Your task to perform on an android device: turn off location Image 0: 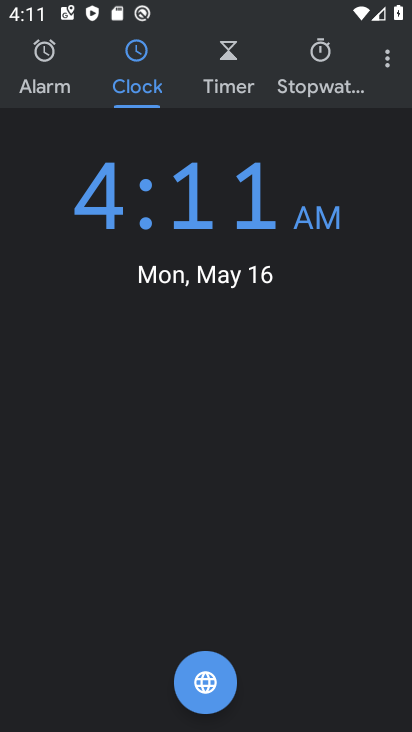
Step 0: press home button
Your task to perform on an android device: turn off location Image 1: 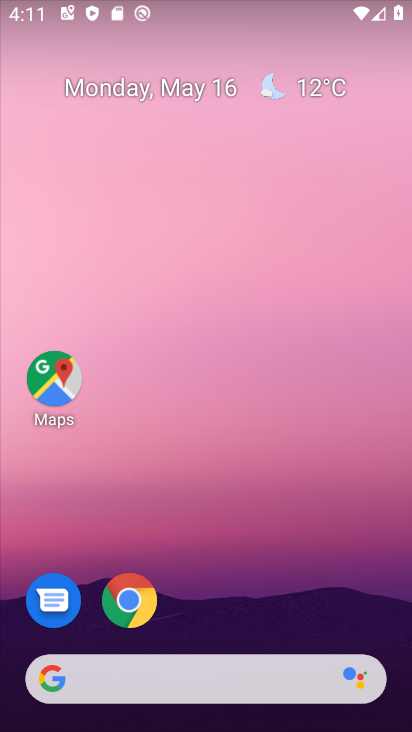
Step 1: drag from (199, 618) to (239, 254)
Your task to perform on an android device: turn off location Image 2: 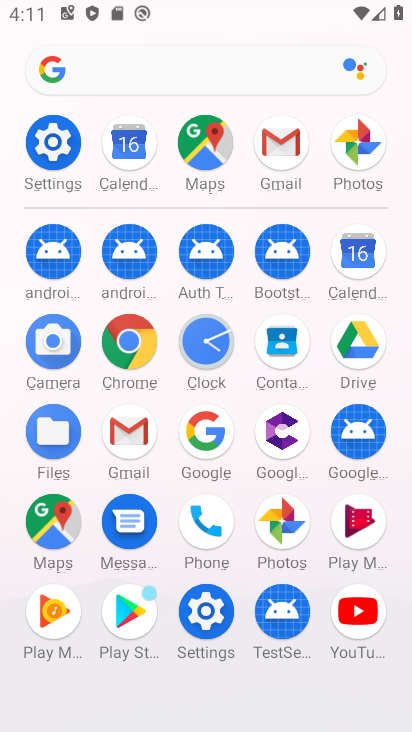
Step 2: click (52, 155)
Your task to perform on an android device: turn off location Image 3: 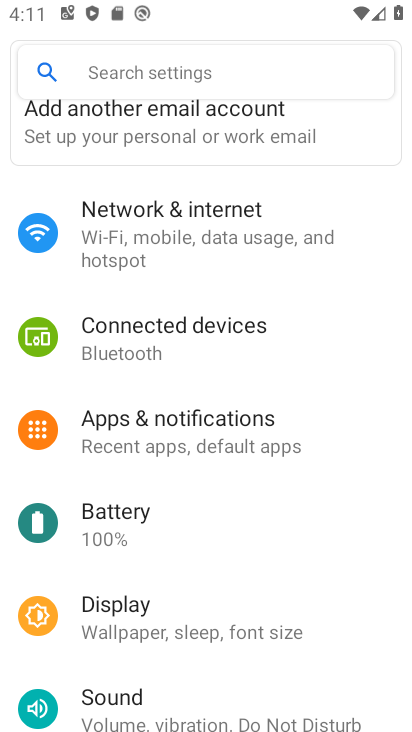
Step 3: drag from (159, 682) to (182, 217)
Your task to perform on an android device: turn off location Image 4: 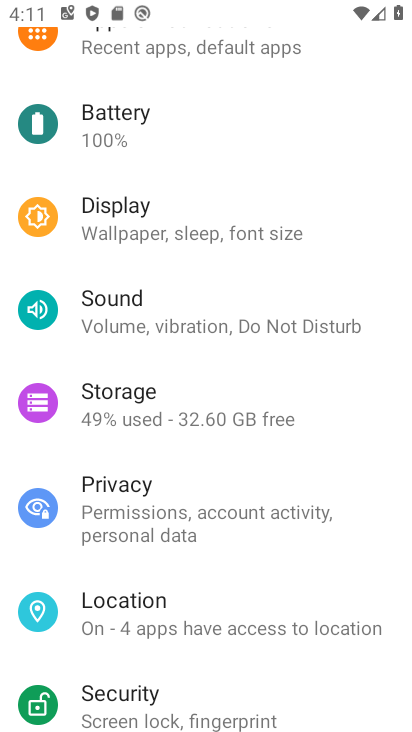
Step 4: drag from (145, 706) to (217, 225)
Your task to perform on an android device: turn off location Image 5: 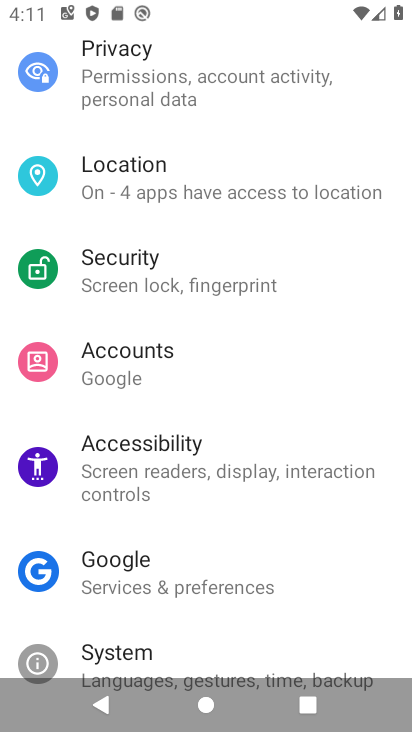
Step 5: drag from (145, 667) to (209, 240)
Your task to perform on an android device: turn off location Image 6: 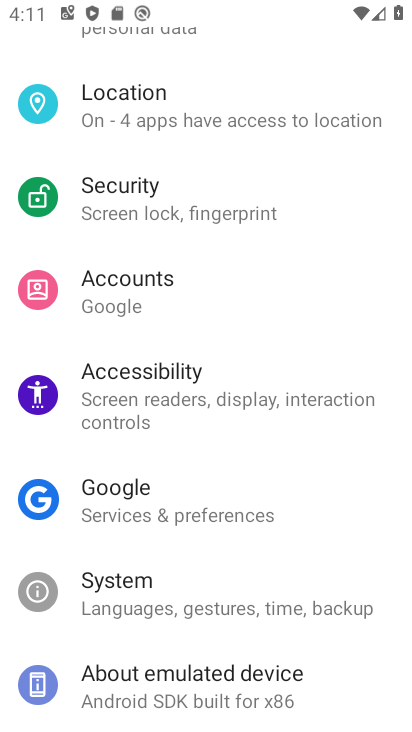
Step 6: click (165, 110)
Your task to perform on an android device: turn off location Image 7: 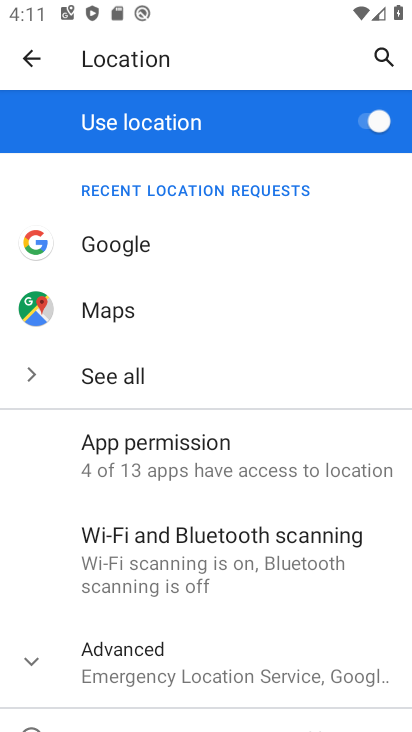
Step 7: click (369, 123)
Your task to perform on an android device: turn off location Image 8: 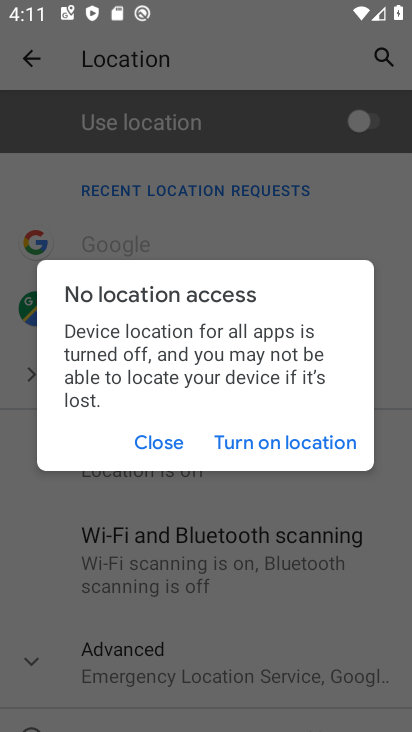
Step 8: click (171, 438)
Your task to perform on an android device: turn off location Image 9: 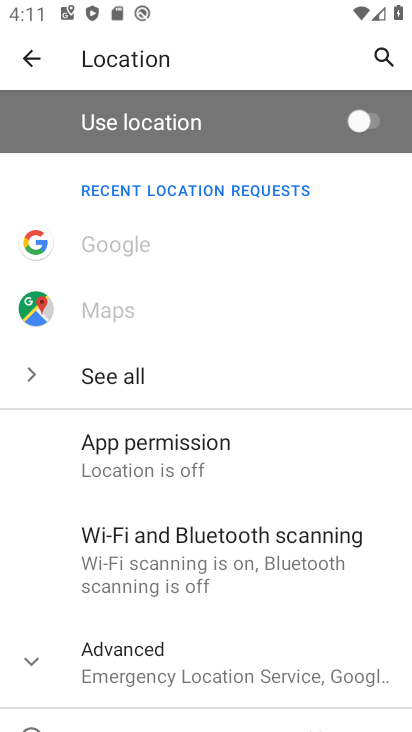
Step 9: task complete